Your task to perform on an android device: turn off location Image 0: 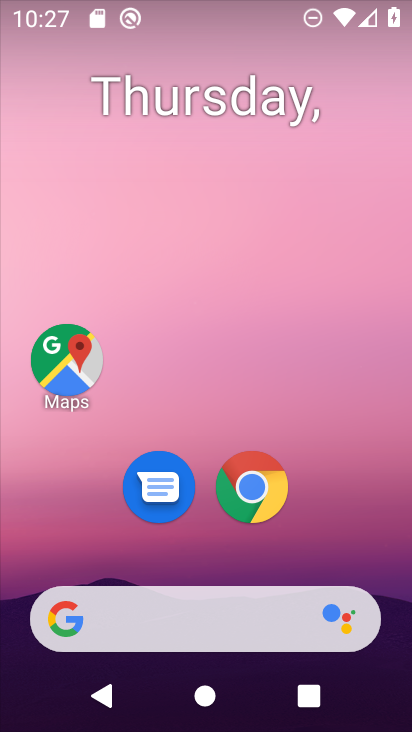
Step 0: drag from (338, 533) to (151, 155)
Your task to perform on an android device: turn off location Image 1: 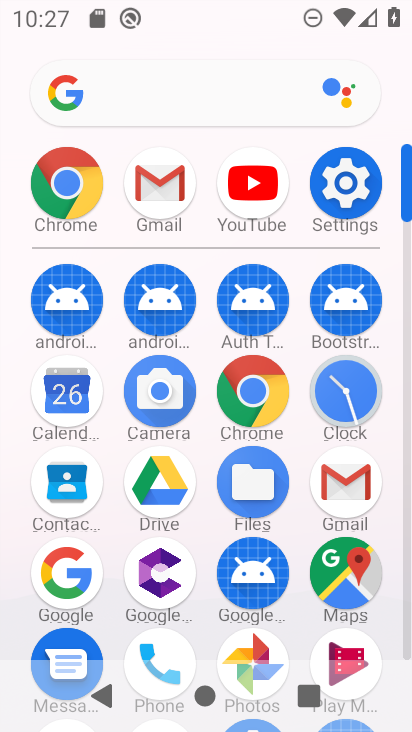
Step 1: click (348, 186)
Your task to perform on an android device: turn off location Image 2: 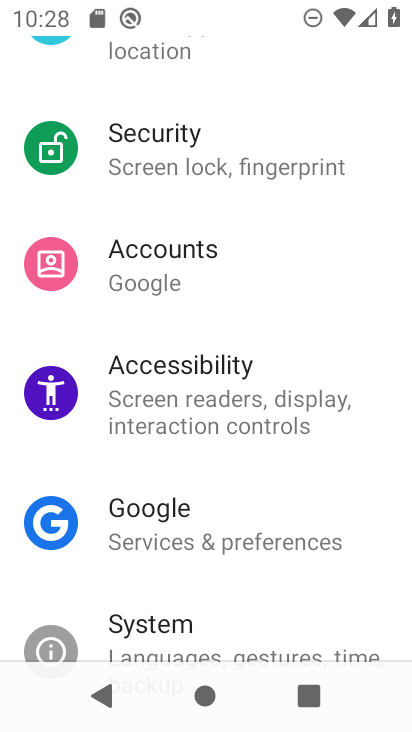
Step 2: drag from (348, 186) to (360, 379)
Your task to perform on an android device: turn off location Image 3: 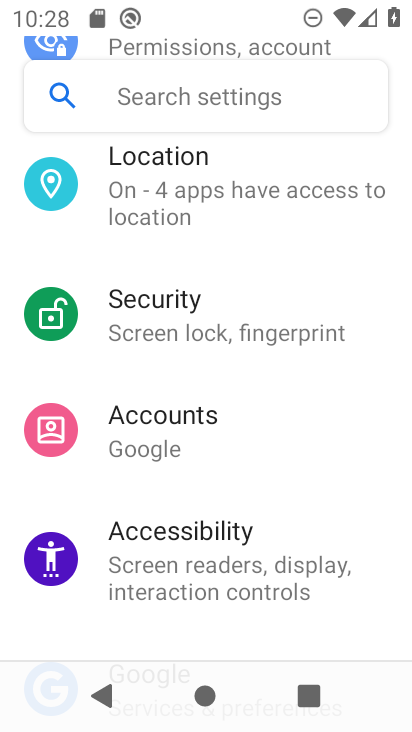
Step 3: click (256, 209)
Your task to perform on an android device: turn off location Image 4: 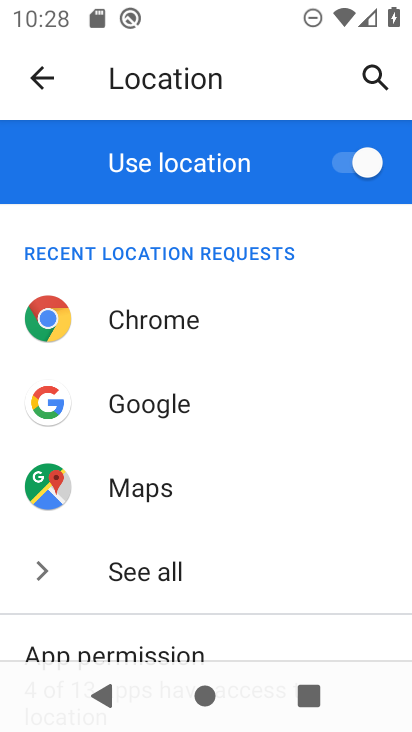
Step 4: click (363, 166)
Your task to perform on an android device: turn off location Image 5: 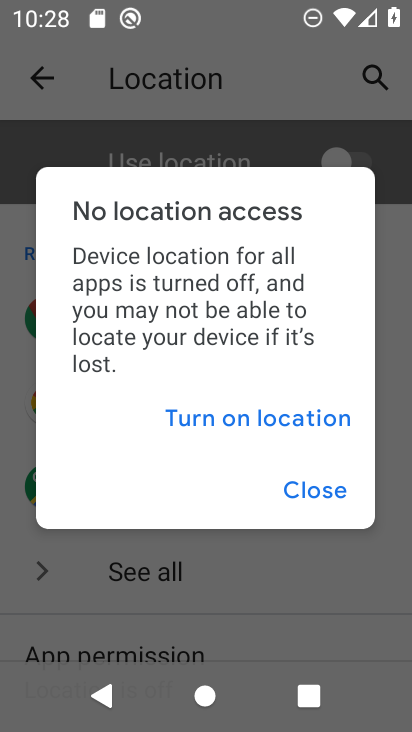
Step 5: task complete